Your task to perform on an android device: search for starred emails in the gmail app Image 0: 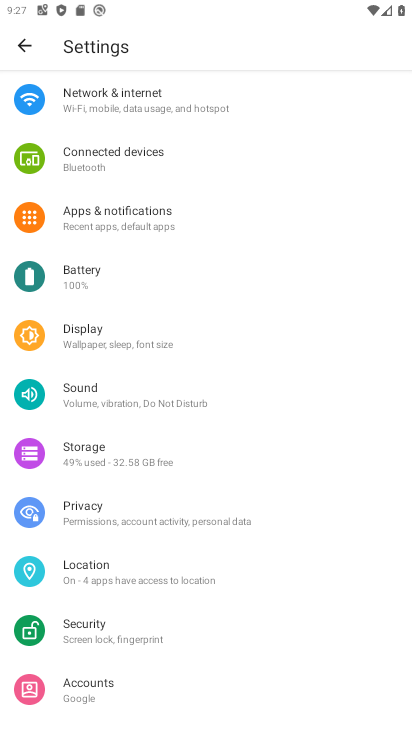
Step 0: press home button
Your task to perform on an android device: search for starred emails in the gmail app Image 1: 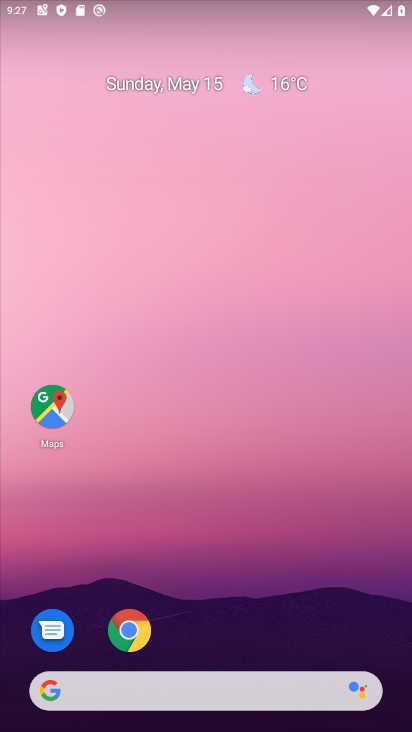
Step 1: click (210, 263)
Your task to perform on an android device: search for starred emails in the gmail app Image 2: 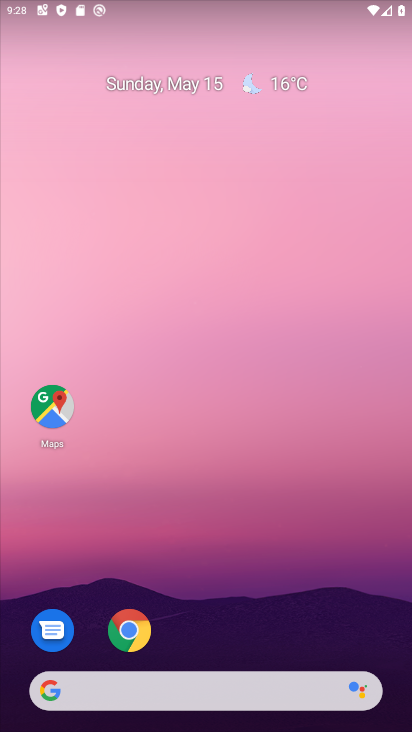
Step 2: drag from (206, 646) to (232, 219)
Your task to perform on an android device: search for starred emails in the gmail app Image 3: 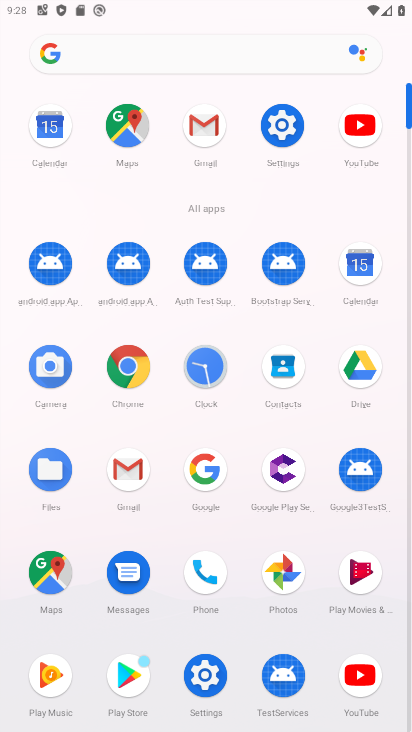
Step 3: click (205, 139)
Your task to perform on an android device: search for starred emails in the gmail app Image 4: 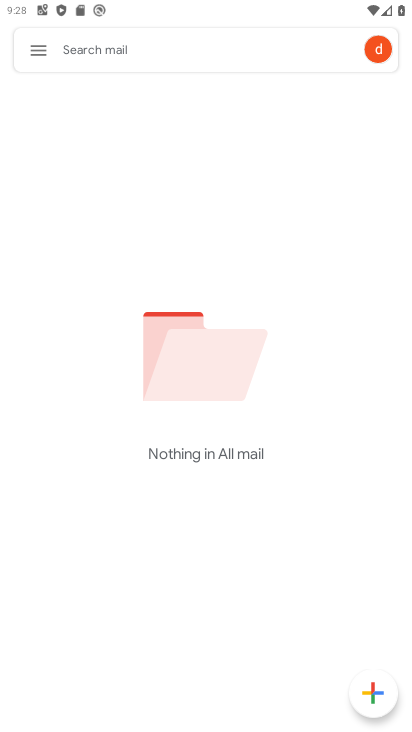
Step 4: click (40, 48)
Your task to perform on an android device: search for starred emails in the gmail app Image 5: 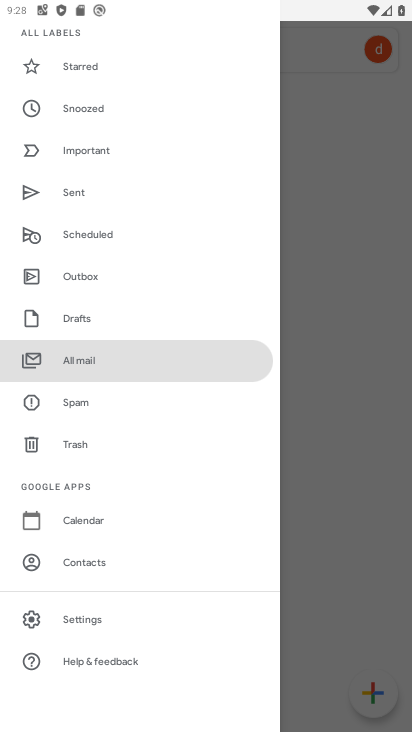
Step 5: click (97, 65)
Your task to perform on an android device: search for starred emails in the gmail app Image 6: 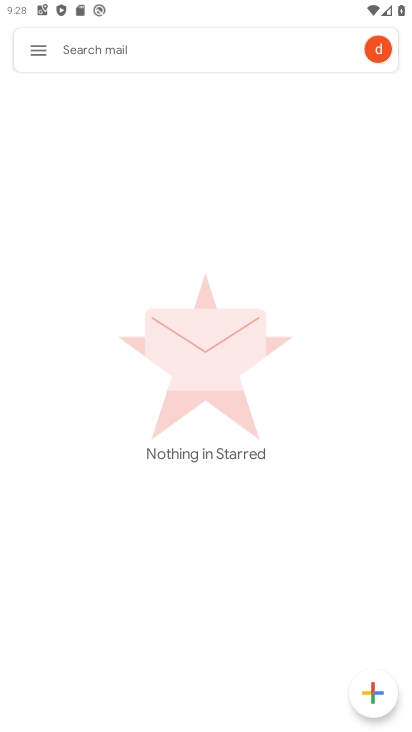
Step 6: task complete